Your task to perform on an android device: turn off improve location accuracy Image 0: 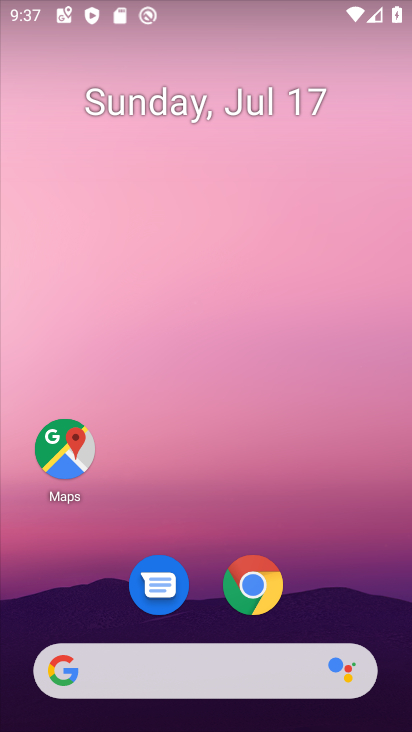
Step 0: drag from (336, 572) to (281, 55)
Your task to perform on an android device: turn off improve location accuracy Image 1: 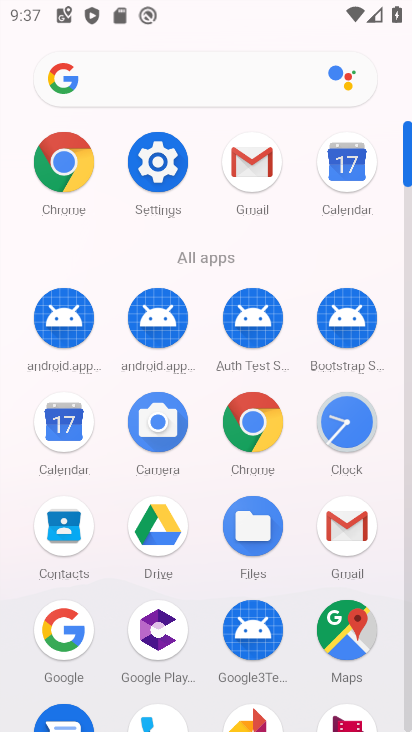
Step 1: click (152, 167)
Your task to perform on an android device: turn off improve location accuracy Image 2: 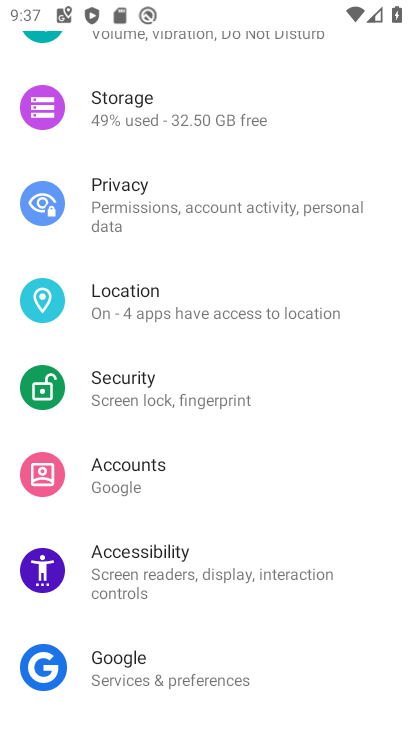
Step 2: click (221, 298)
Your task to perform on an android device: turn off improve location accuracy Image 3: 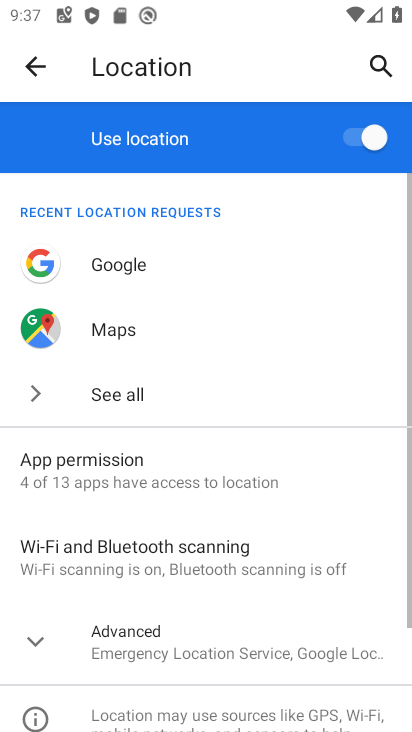
Step 3: click (37, 649)
Your task to perform on an android device: turn off improve location accuracy Image 4: 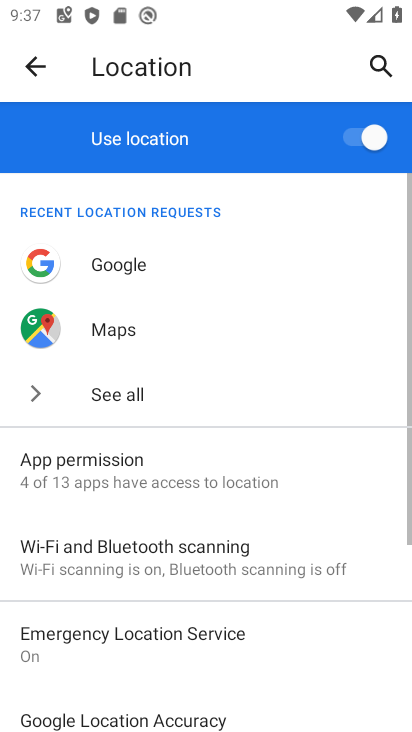
Step 4: drag from (286, 537) to (281, 213)
Your task to perform on an android device: turn off improve location accuracy Image 5: 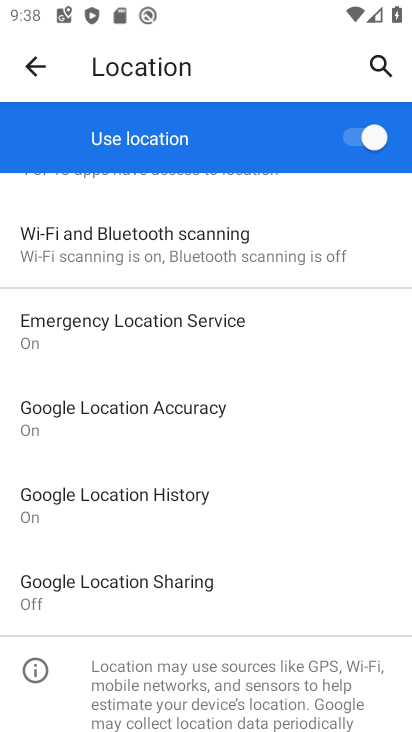
Step 5: click (216, 425)
Your task to perform on an android device: turn off improve location accuracy Image 6: 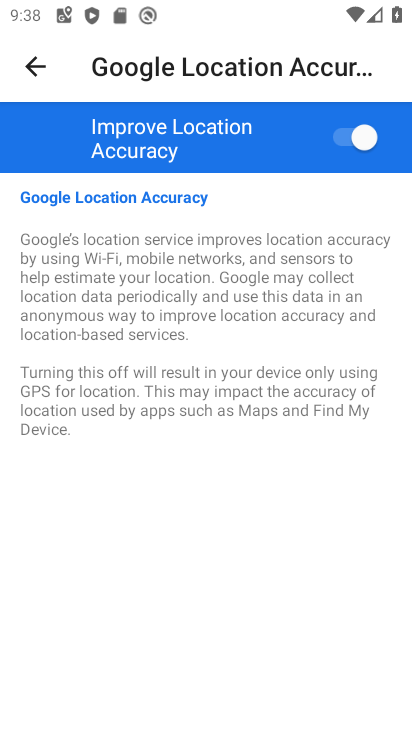
Step 6: click (351, 134)
Your task to perform on an android device: turn off improve location accuracy Image 7: 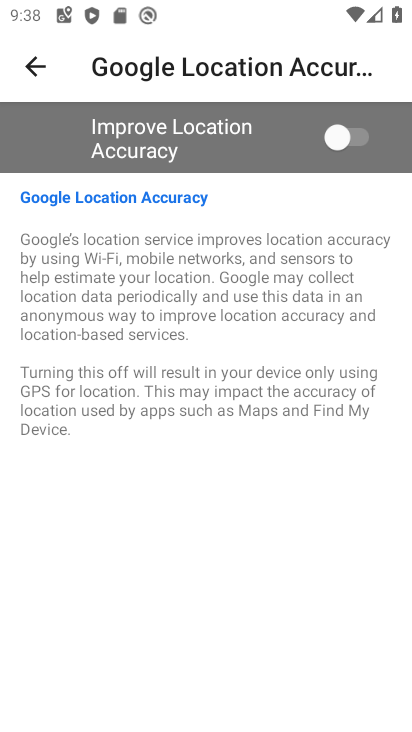
Step 7: task complete